Your task to perform on an android device: Search for vegetarian restaurants on Maps Image 0: 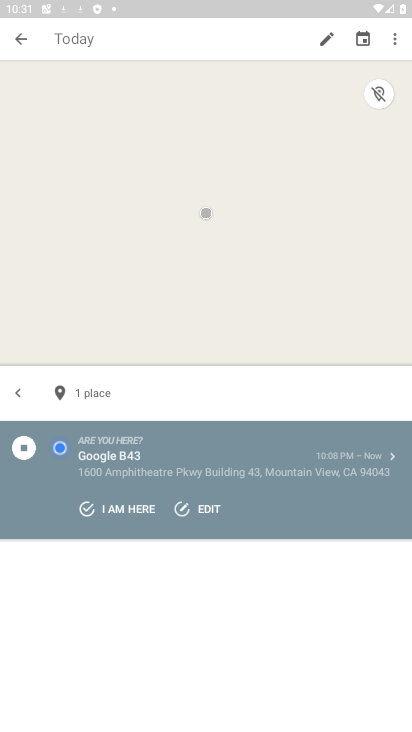
Step 0: press home button
Your task to perform on an android device: Search for vegetarian restaurants on Maps Image 1: 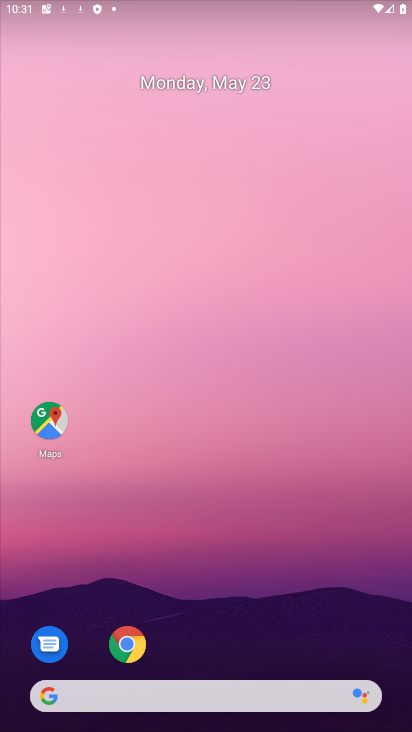
Step 1: drag from (229, 710) to (252, 84)
Your task to perform on an android device: Search for vegetarian restaurants on Maps Image 2: 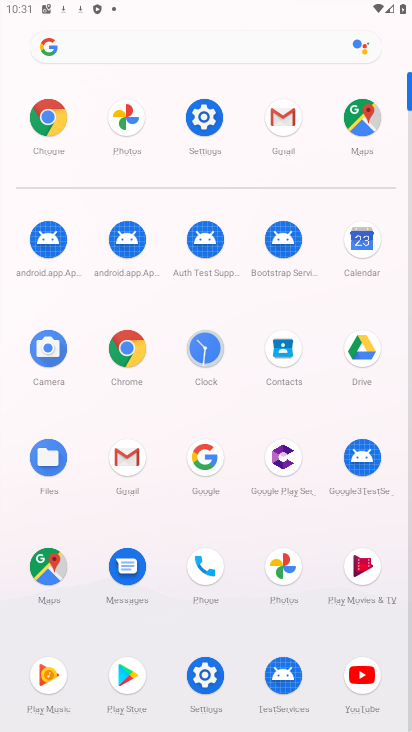
Step 2: click (373, 130)
Your task to perform on an android device: Search for vegetarian restaurants on Maps Image 3: 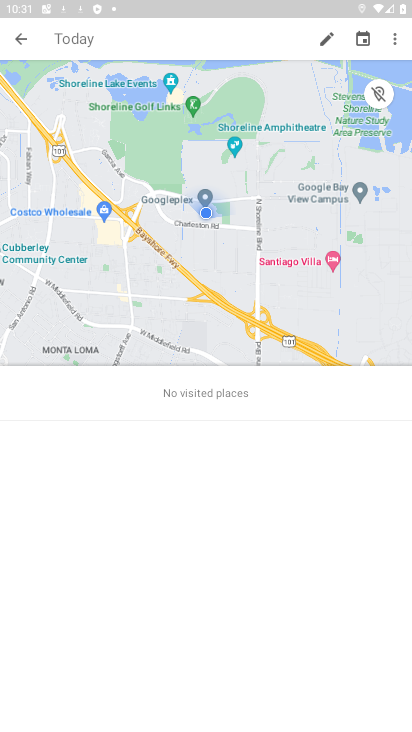
Step 3: click (27, 42)
Your task to perform on an android device: Search for vegetarian restaurants on Maps Image 4: 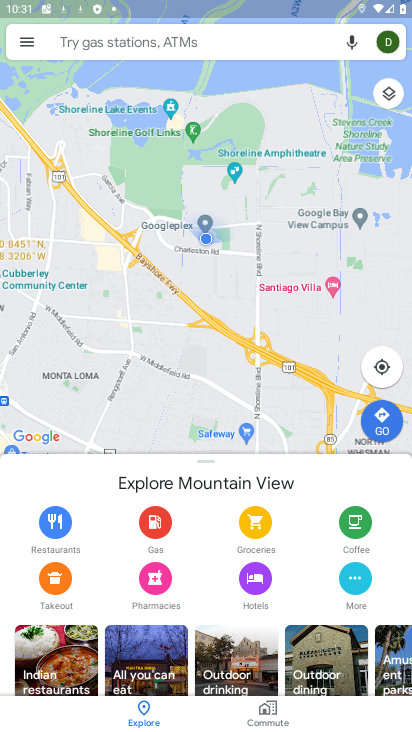
Step 4: click (164, 41)
Your task to perform on an android device: Search for vegetarian restaurants on Maps Image 5: 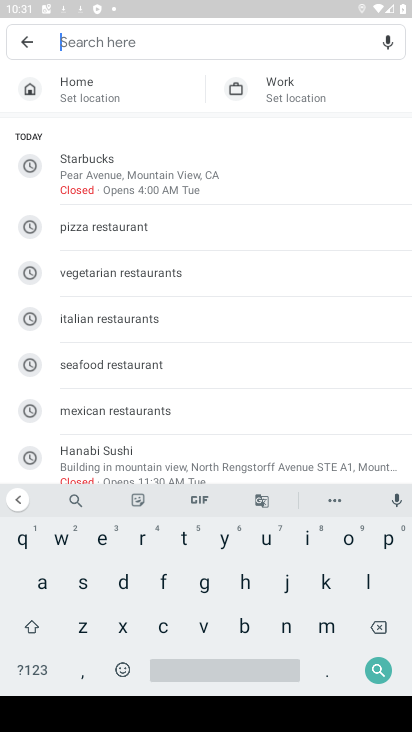
Step 5: click (159, 280)
Your task to perform on an android device: Search for vegetarian restaurants on Maps Image 6: 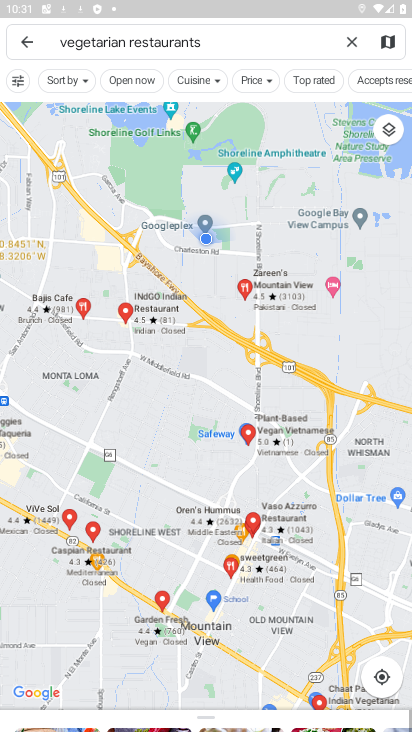
Step 6: task complete